Your task to perform on an android device: find snoozed emails in the gmail app Image 0: 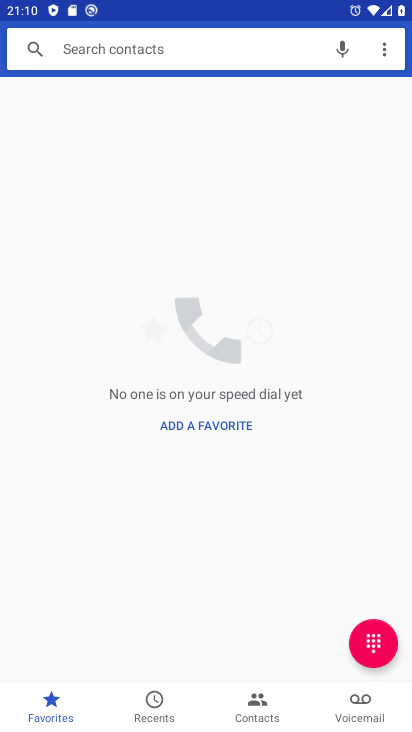
Step 0: press home button
Your task to perform on an android device: find snoozed emails in the gmail app Image 1: 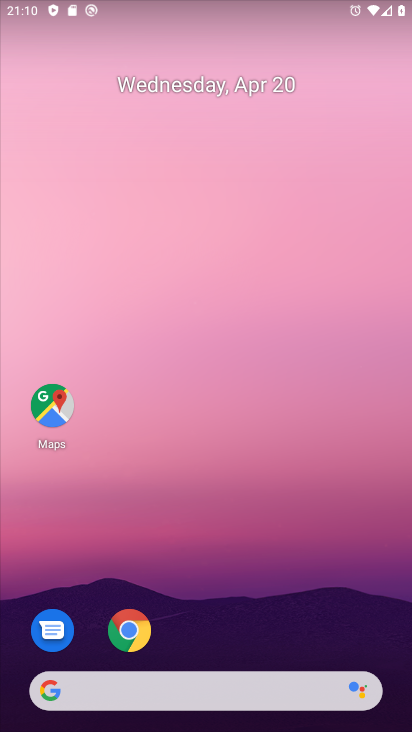
Step 1: drag from (258, 626) to (150, 97)
Your task to perform on an android device: find snoozed emails in the gmail app Image 2: 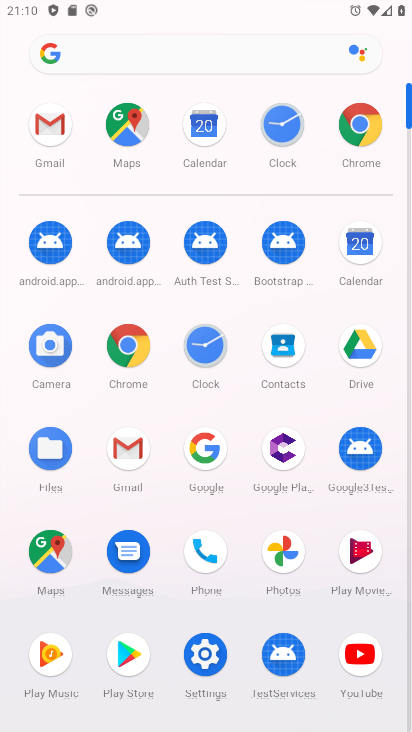
Step 2: click (127, 451)
Your task to perform on an android device: find snoozed emails in the gmail app Image 3: 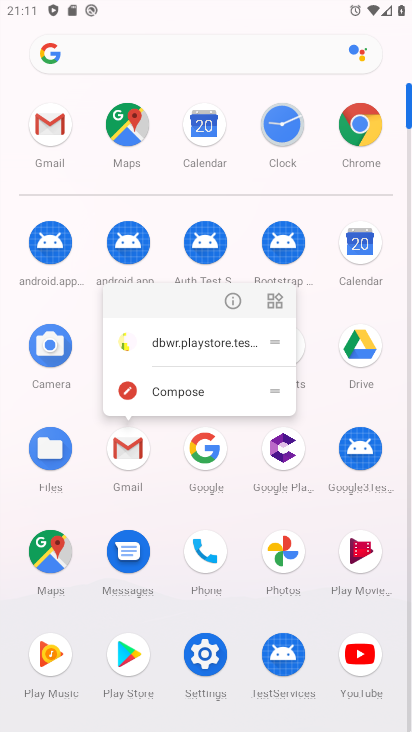
Step 3: click (44, 129)
Your task to perform on an android device: find snoozed emails in the gmail app Image 4: 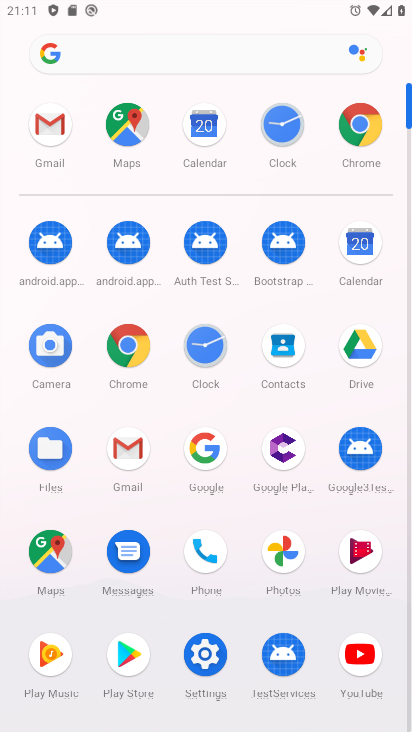
Step 4: click (44, 129)
Your task to perform on an android device: find snoozed emails in the gmail app Image 5: 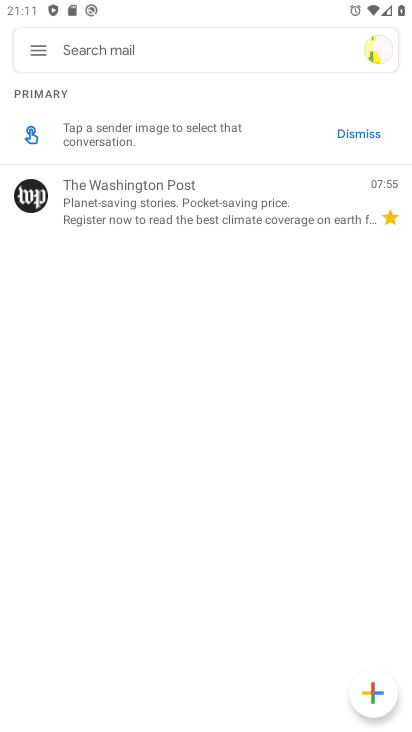
Step 5: click (35, 44)
Your task to perform on an android device: find snoozed emails in the gmail app Image 6: 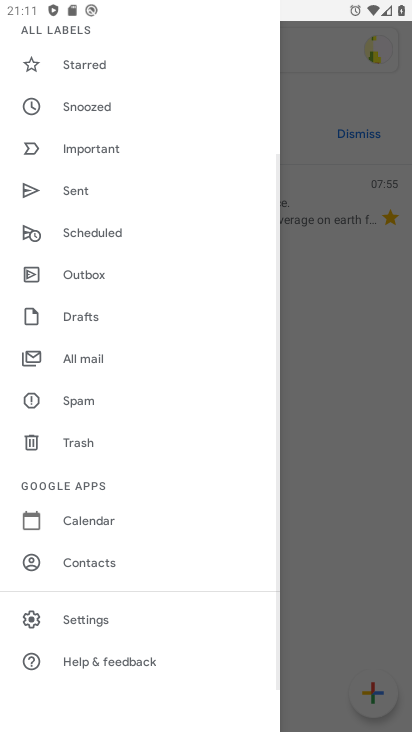
Step 6: click (102, 112)
Your task to perform on an android device: find snoozed emails in the gmail app Image 7: 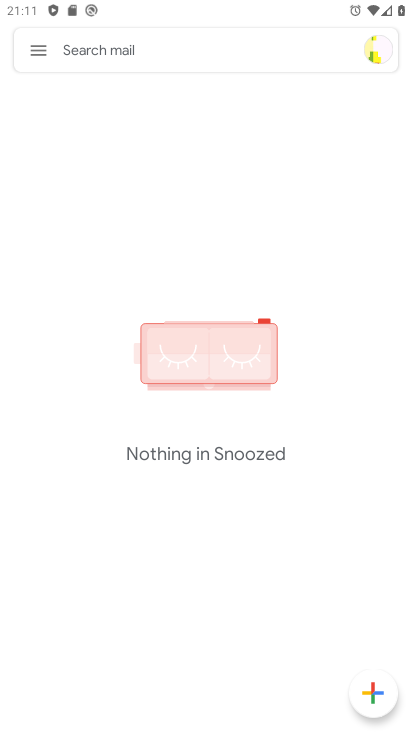
Step 7: task complete